Your task to perform on an android device: add a contact in the contacts app Image 0: 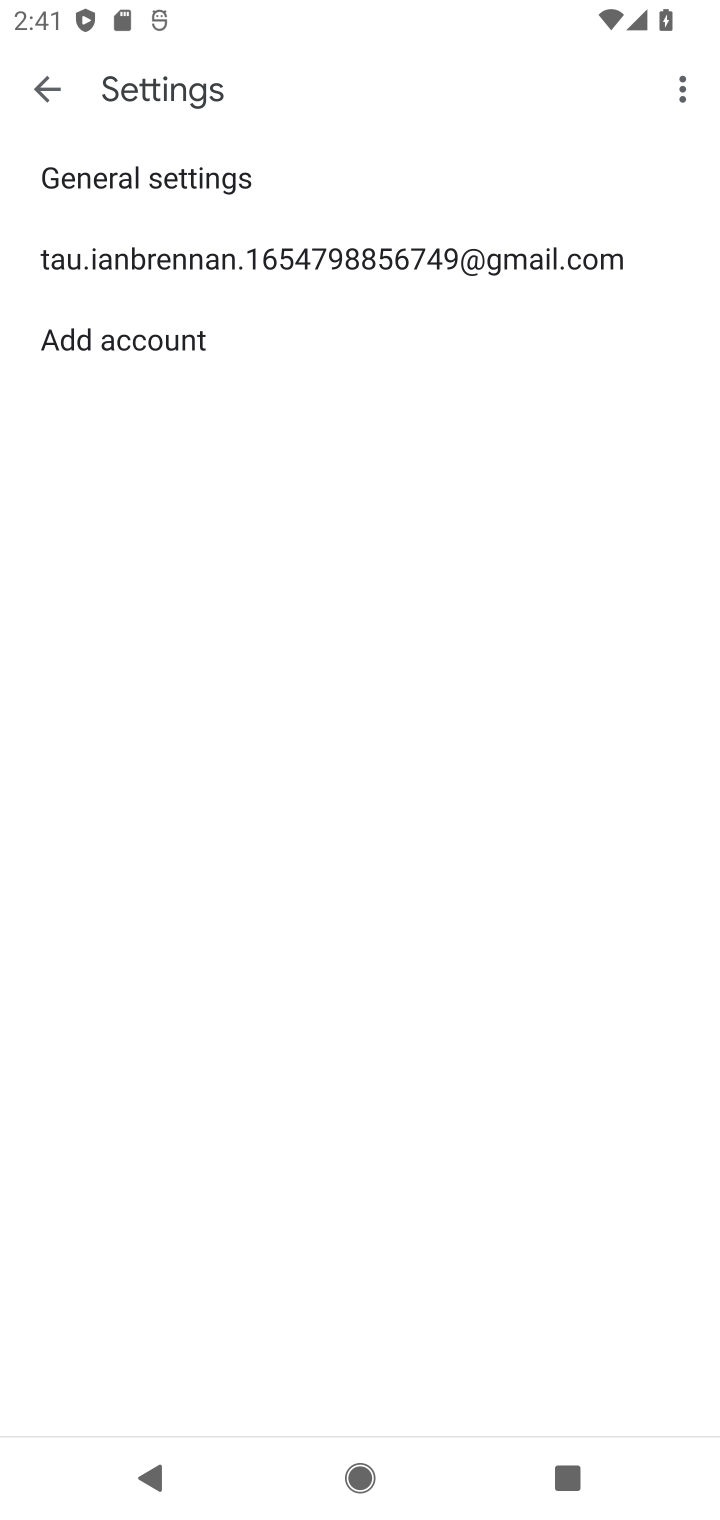
Step 0: press home button
Your task to perform on an android device: add a contact in the contacts app Image 1: 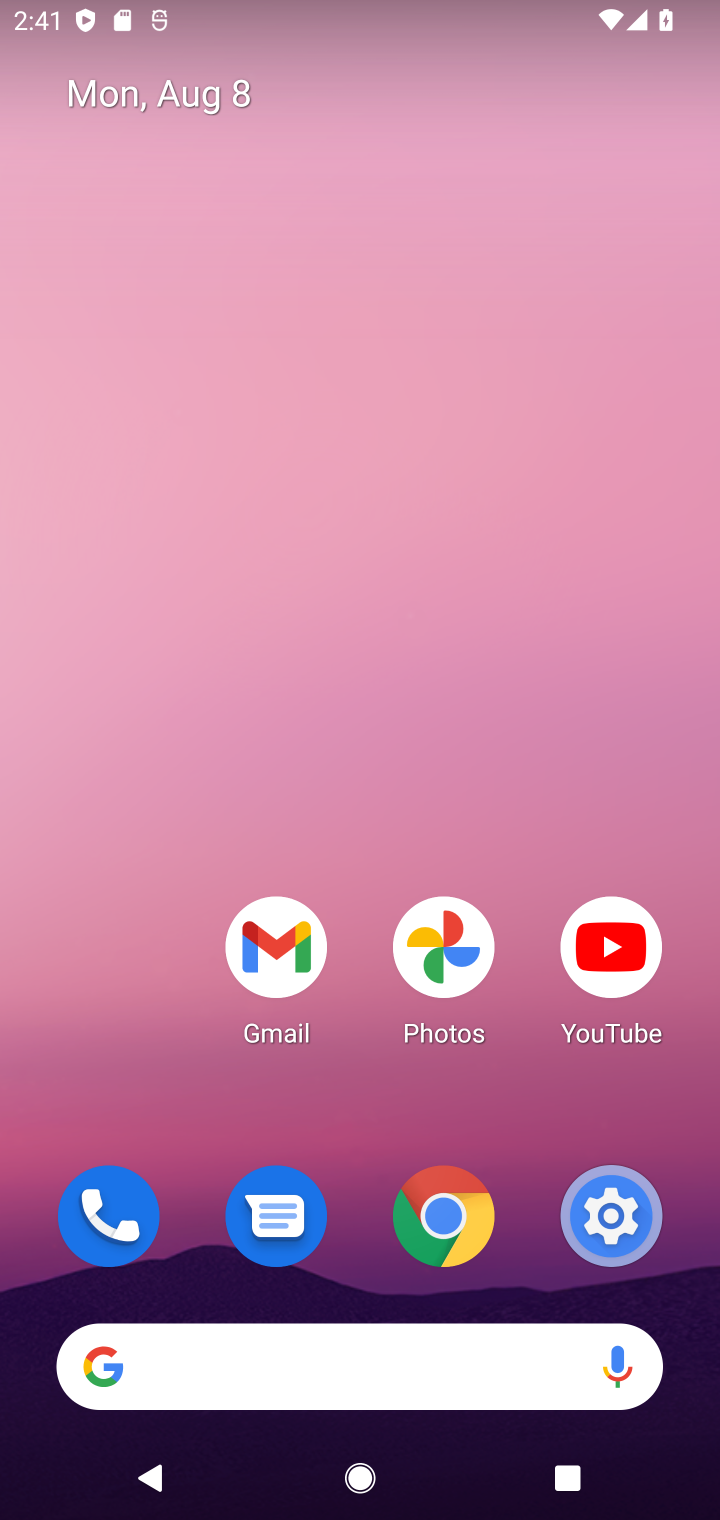
Step 1: drag from (525, 528) to (491, 219)
Your task to perform on an android device: add a contact in the contacts app Image 2: 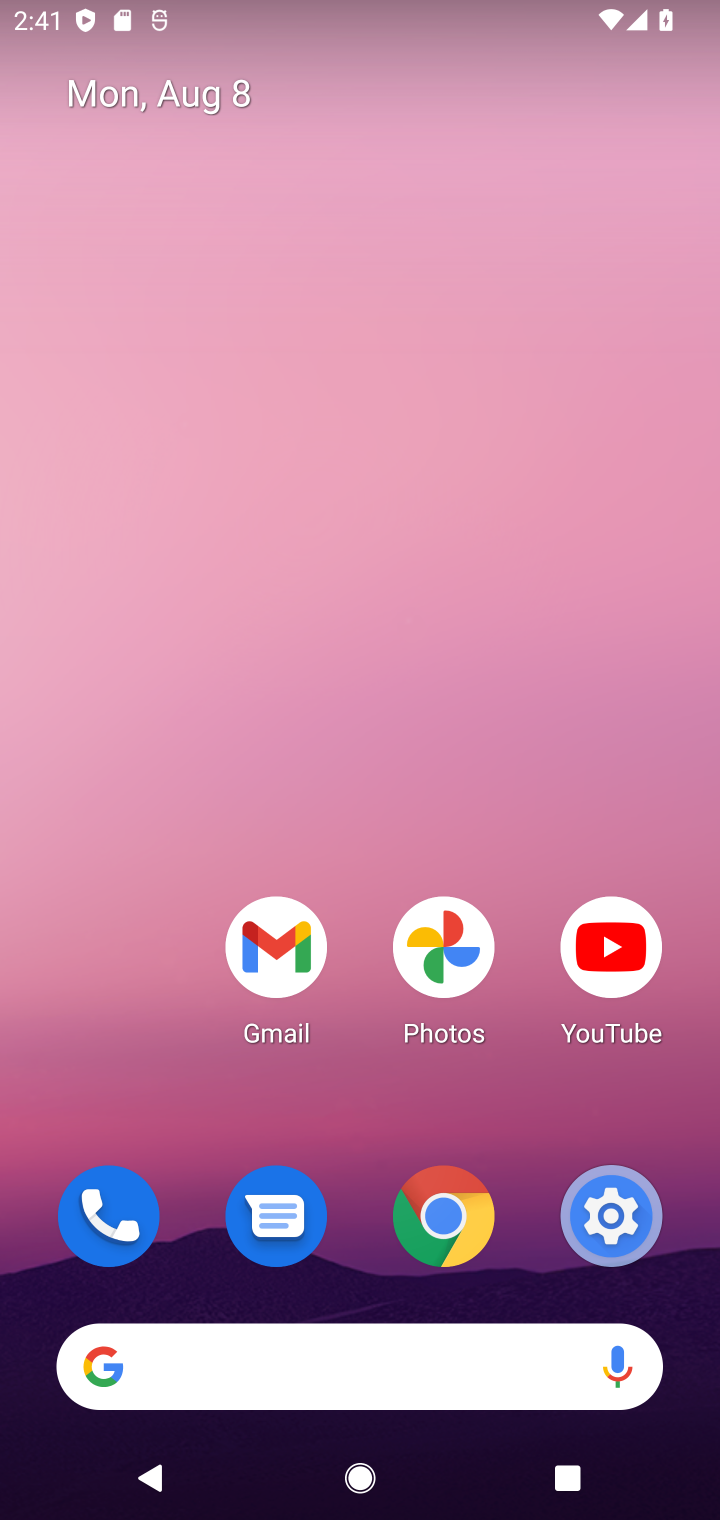
Step 2: drag from (558, 686) to (535, 5)
Your task to perform on an android device: add a contact in the contacts app Image 3: 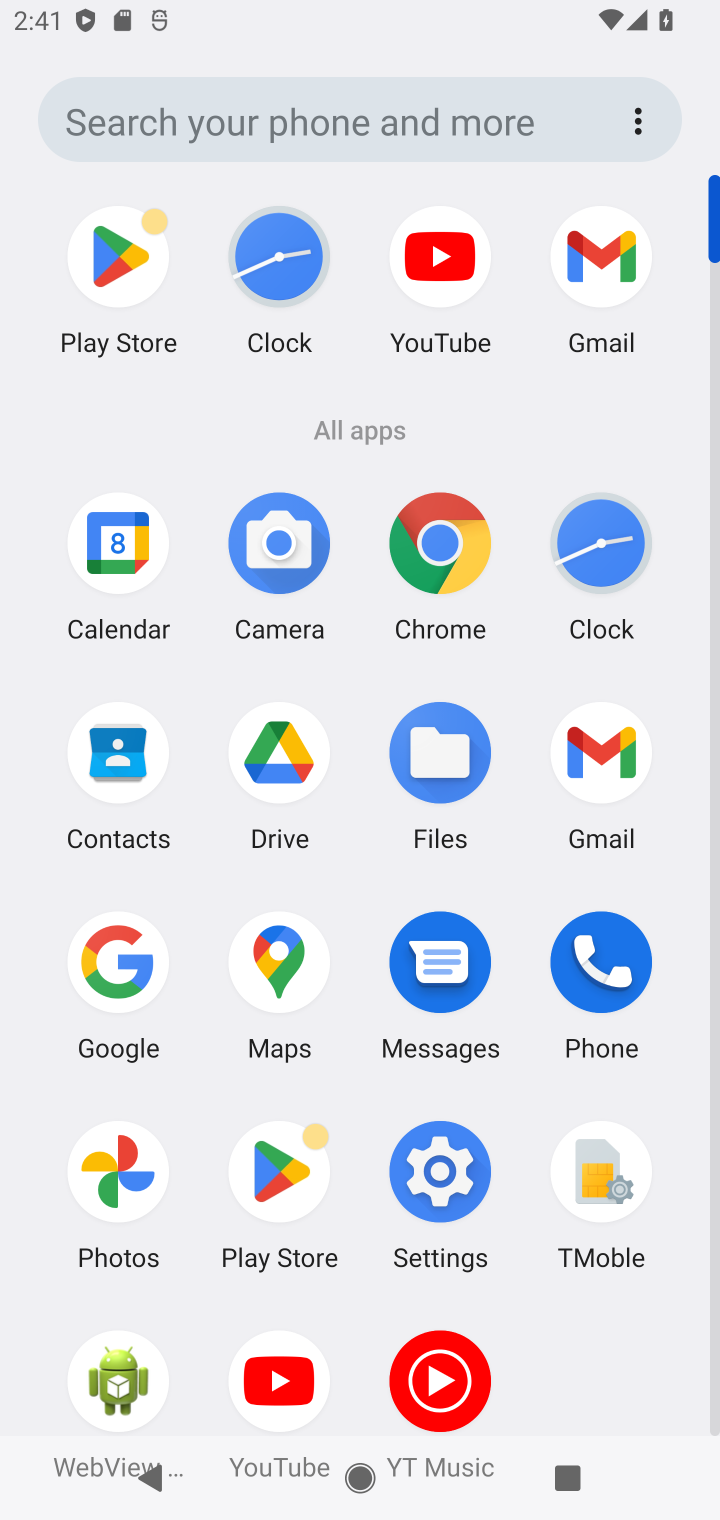
Step 3: click (138, 777)
Your task to perform on an android device: add a contact in the contacts app Image 4: 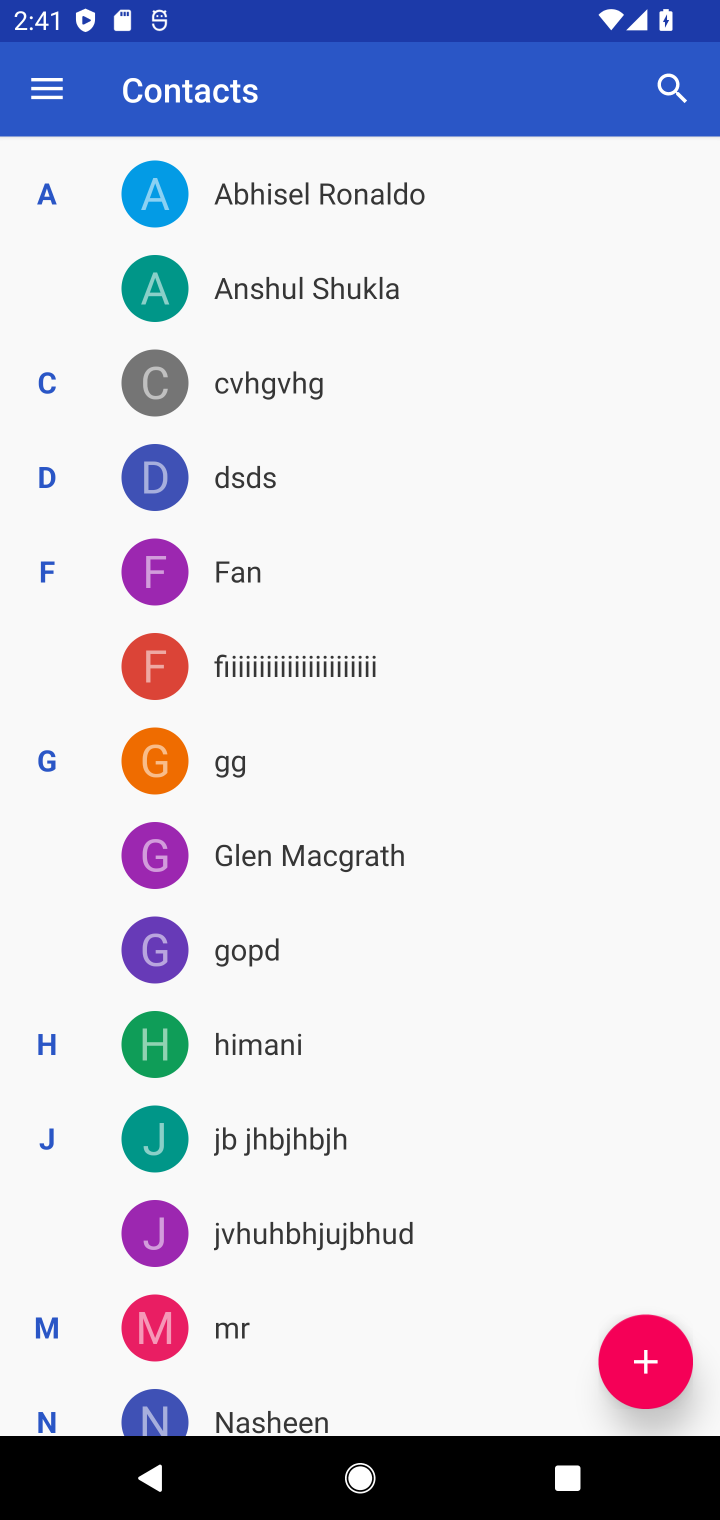
Step 4: click (655, 1382)
Your task to perform on an android device: add a contact in the contacts app Image 5: 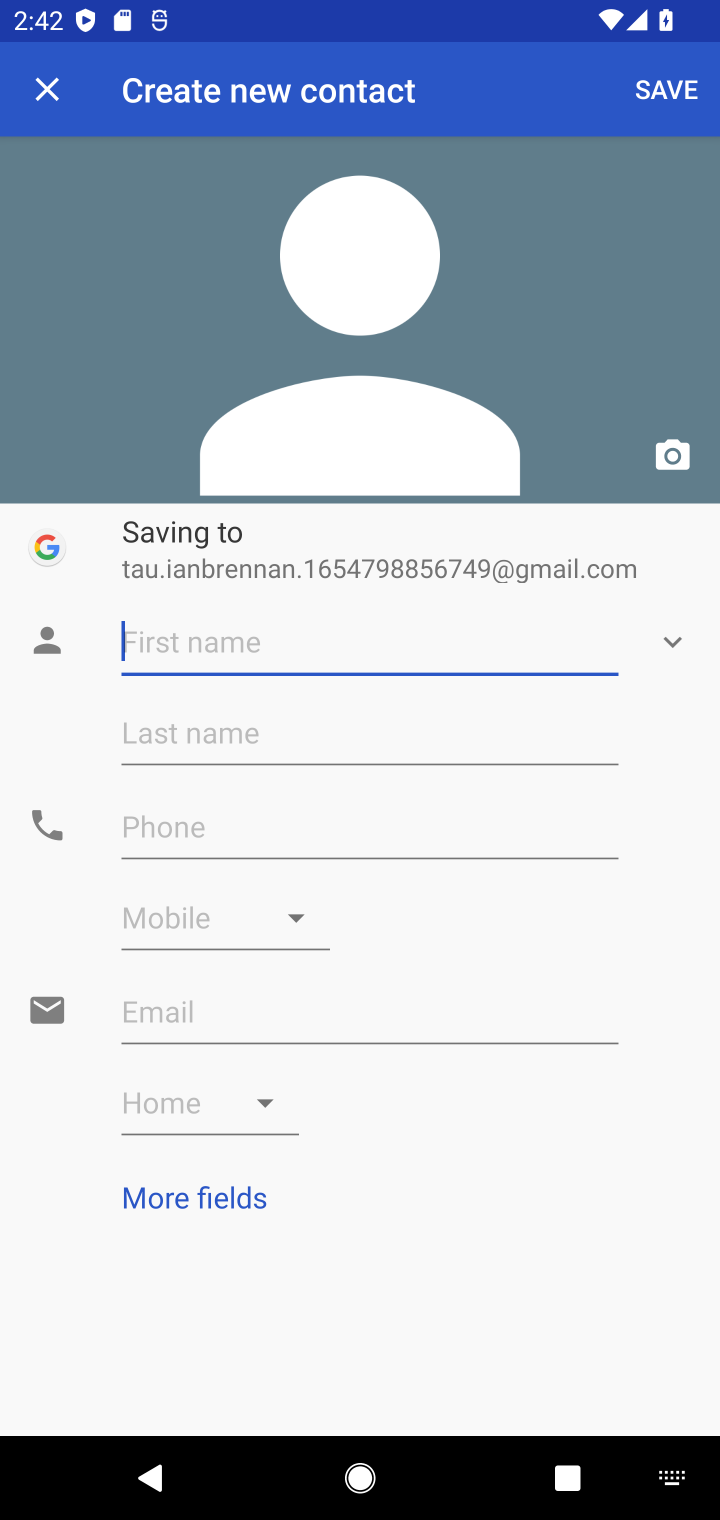
Step 5: type "hjnkj"
Your task to perform on an android device: add a contact in the contacts app Image 6: 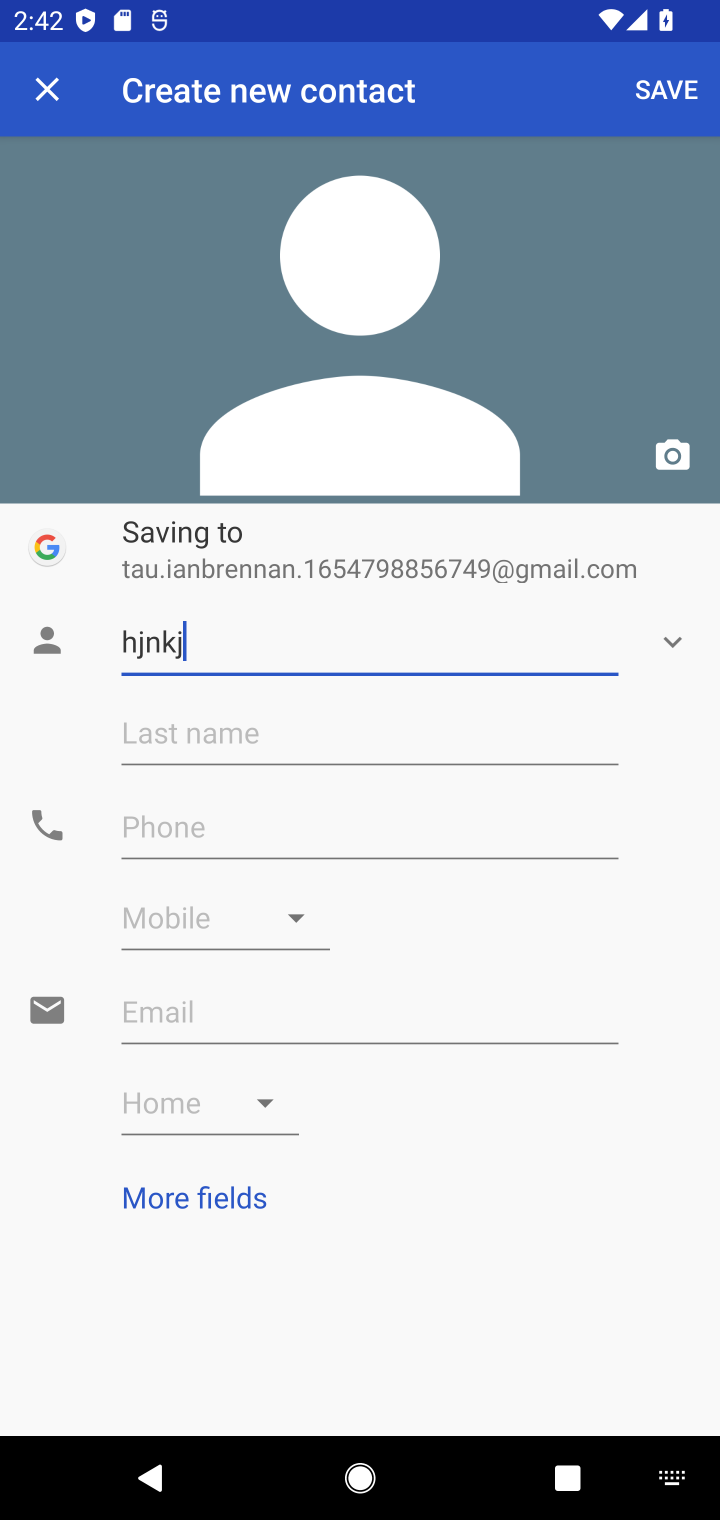
Step 6: click (374, 831)
Your task to perform on an android device: add a contact in the contacts app Image 7: 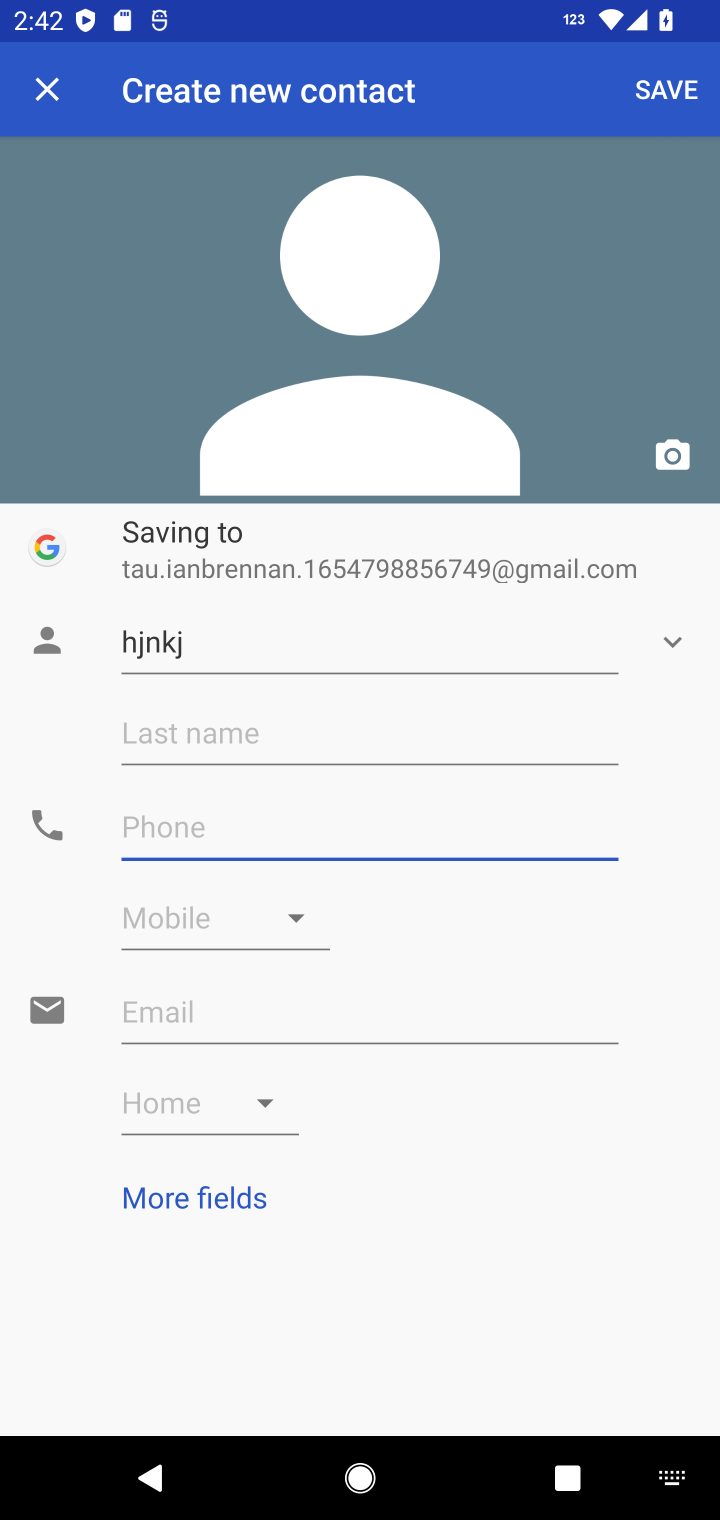
Step 7: type "09890890"
Your task to perform on an android device: add a contact in the contacts app Image 8: 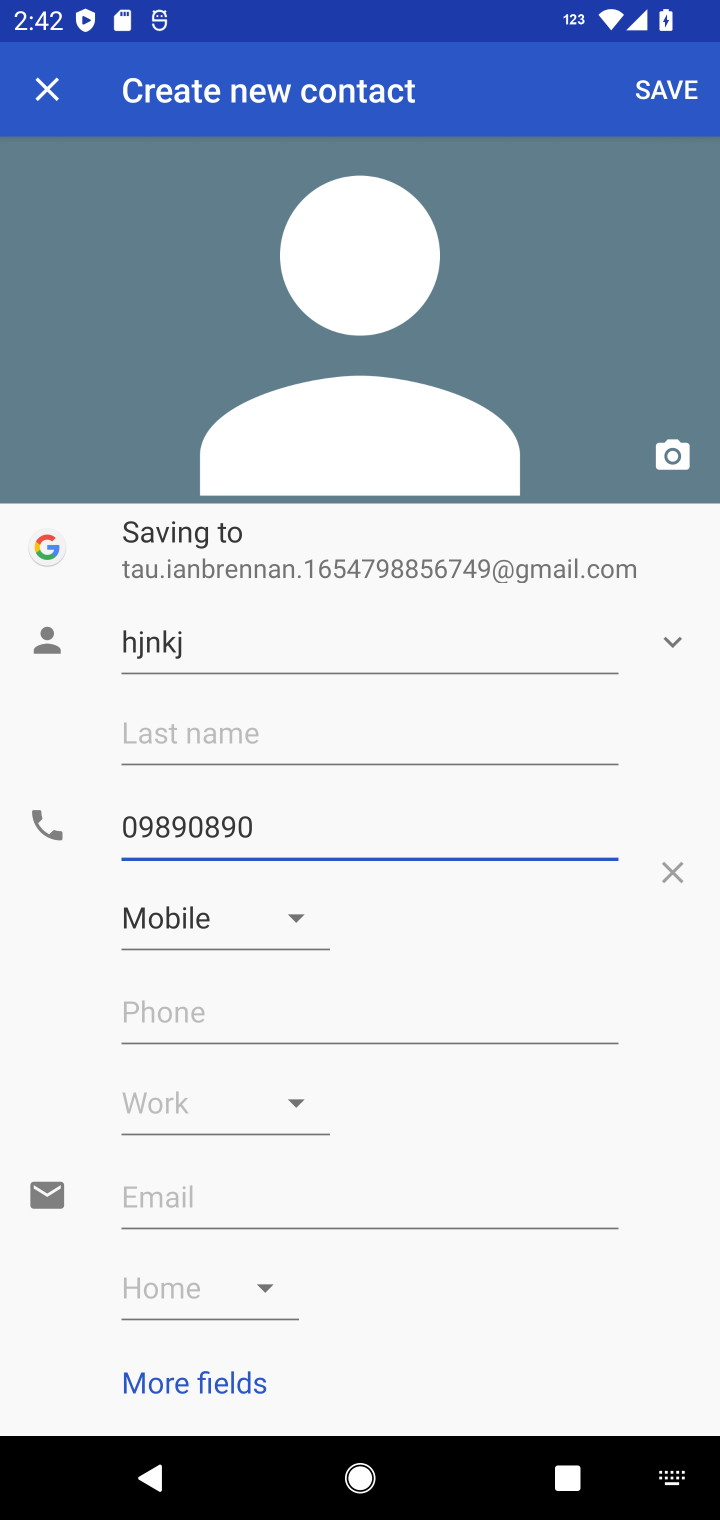
Step 8: click (690, 92)
Your task to perform on an android device: add a contact in the contacts app Image 9: 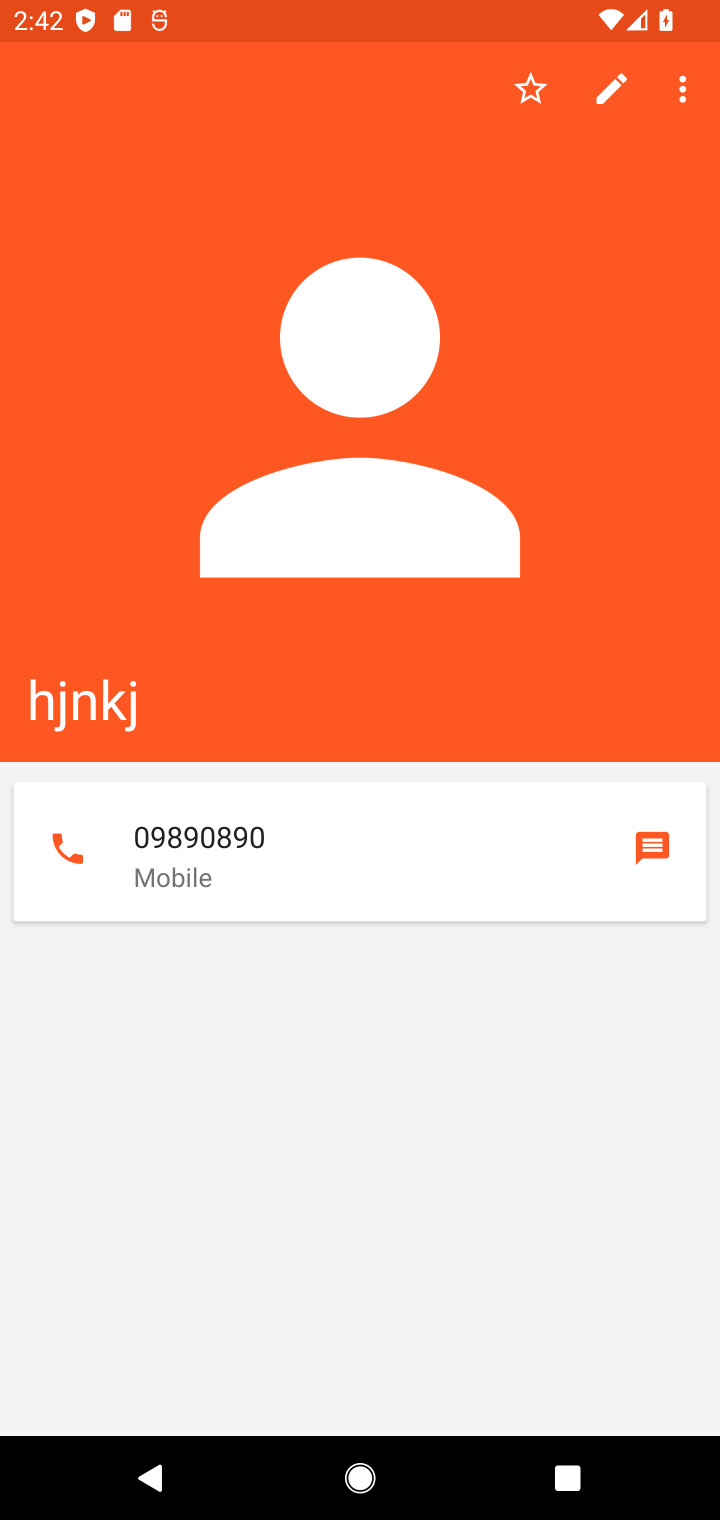
Step 9: task complete